Your task to perform on an android device: allow notifications from all sites in the chrome app Image 0: 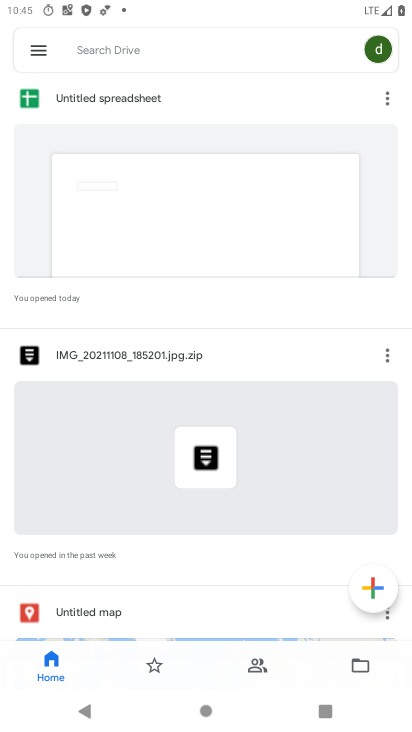
Step 0: press home button
Your task to perform on an android device: allow notifications from all sites in the chrome app Image 1: 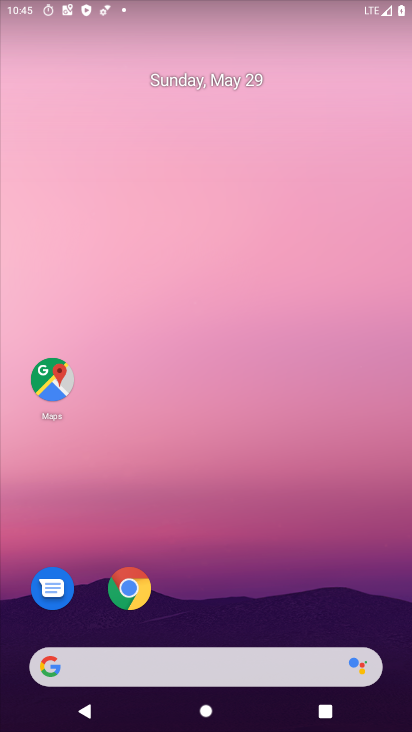
Step 1: drag from (319, 560) to (362, 85)
Your task to perform on an android device: allow notifications from all sites in the chrome app Image 2: 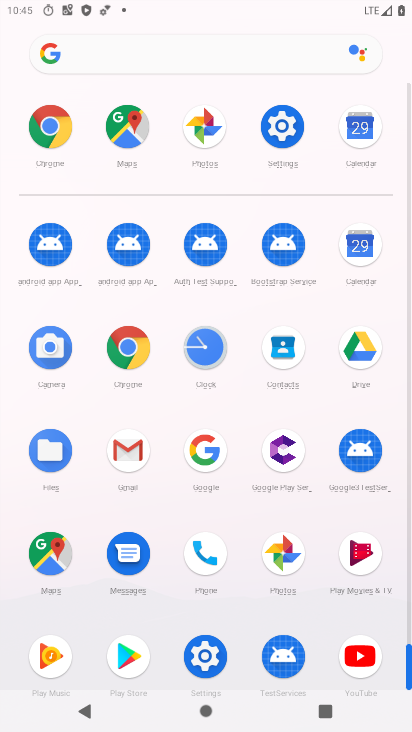
Step 2: click (121, 354)
Your task to perform on an android device: allow notifications from all sites in the chrome app Image 3: 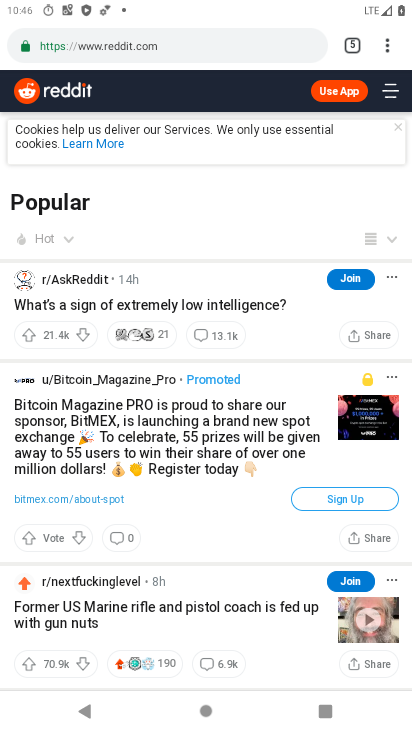
Step 3: click (386, 52)
Your task to perform on an android device: allow notifications from all sites in the chrome app Image 4: 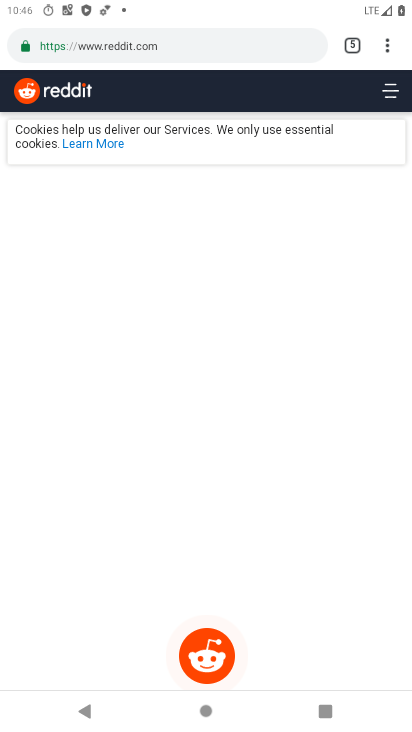
Step 4: click (383, 48)
Your task to perform on an android device: allow notifications from all sites in the chrome app Image 5: 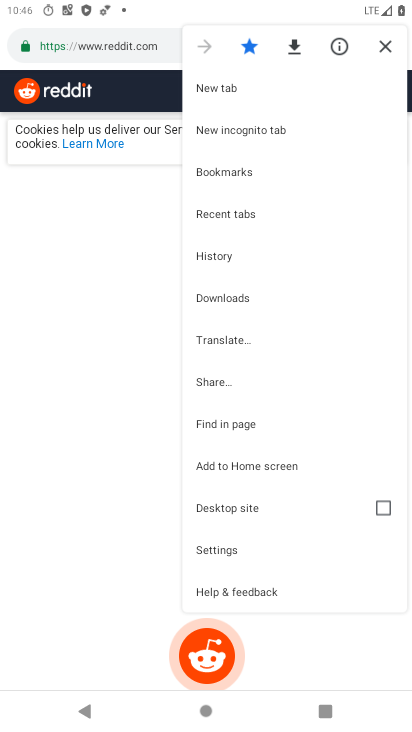
Step 5: click (218, 560)
Your task to perform on an android device: allow notifications from all sites in the chrome app Image 6: 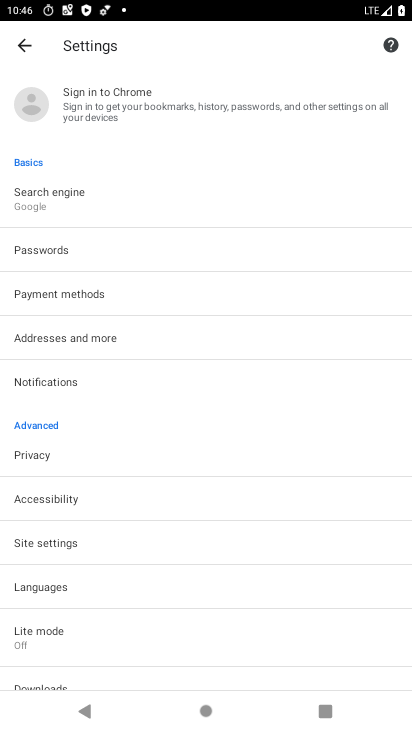
Step 6: click (80, 543)
Your task to perform on an android device: allow notifications from all sites in the chrome app Image 7: 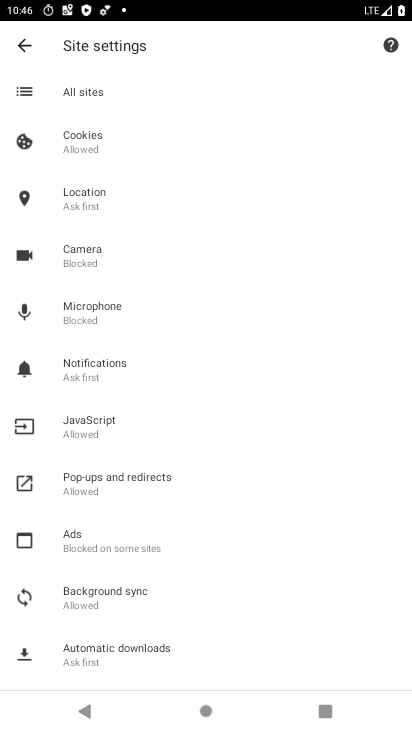
Step 7: click (156, 100)
Your task to perform on an android device: allow notifications from all sites in the chrome app Image 8: 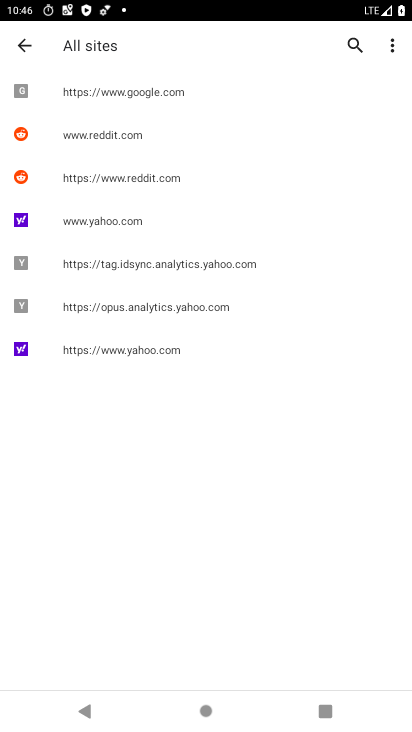
Step 8: task complete